Your task to perform on an android device: Open the calendar and show me this week's events? Image 0: 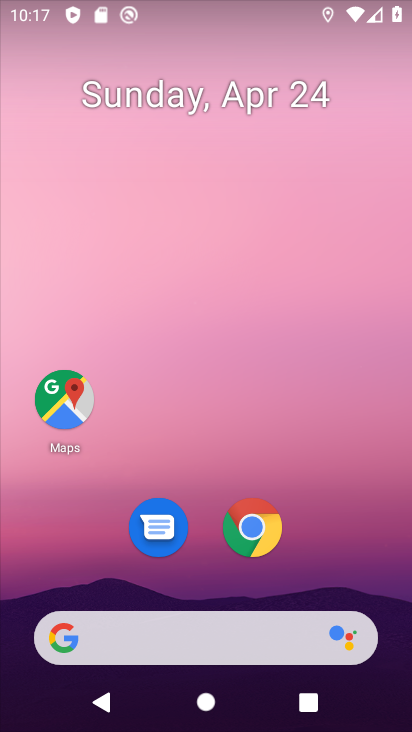
Step 0: drag from (313, 534) to (246, 60)
Your task to perform on an android device: Open the calendar and show me this week's events? Image 1: 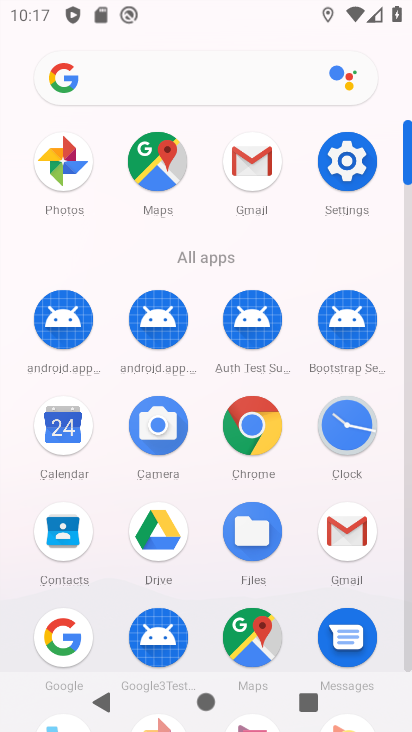
Step 1: click (72, 429)
Your task to perform on an android device: Open the calendar and show me this week's events? Image 2: 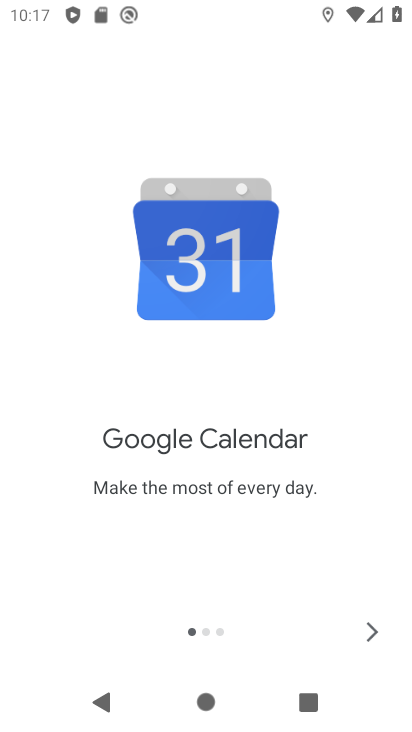
Step 2: click (375, 625)
Your task to perform on an android device: Open the calendar and show me this week's events? Image 3: 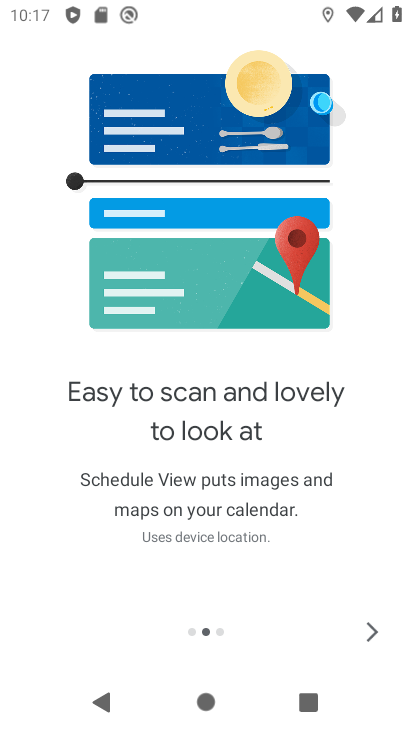
Step 3: click (375, 625)
Your task to perform on an android device: Open the calendar and show me this week's events? Image 4: 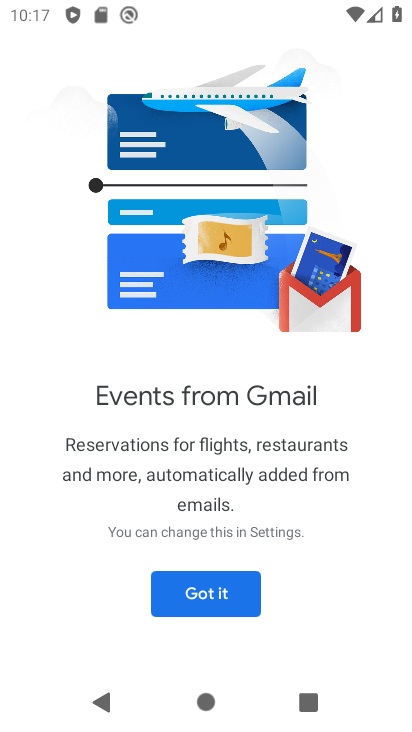
Step 4: click (166, 607)
Your task to perform on an android device: Open the calendar and show me this week's events? Image 5: 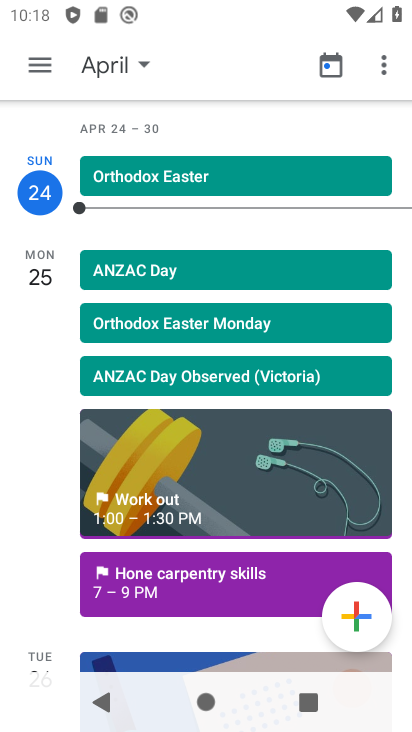
Step 5: click (104, 75)
Your task to perform on an android device: Open the calendar and show me this week's events? Image 6: 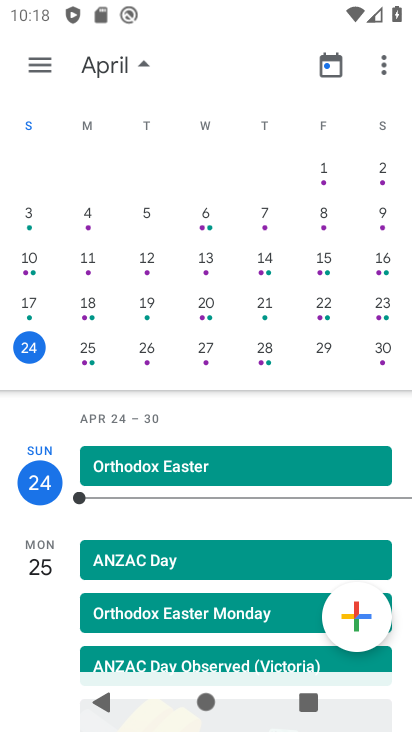
Step 6: click (95, 344)
Your task to perform on an android device: Open the calendar and show me this week's events? Image 7: 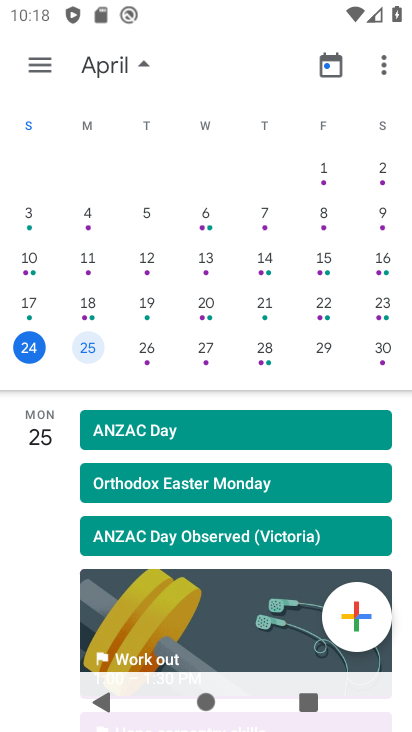
Step 7: click (142, 352)
Your task to perform on an android device: Open the calendar and show me this week's events? Image 8: 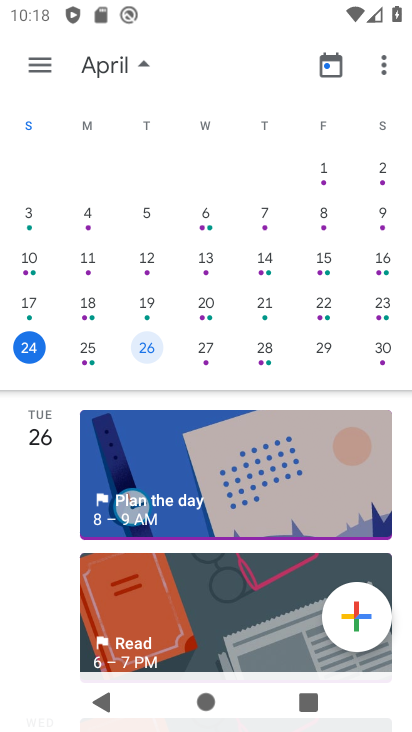
Step 8: click (210, 349)
Your task to perform on an android device: Open the calendar and show me this week's events? Image 9: 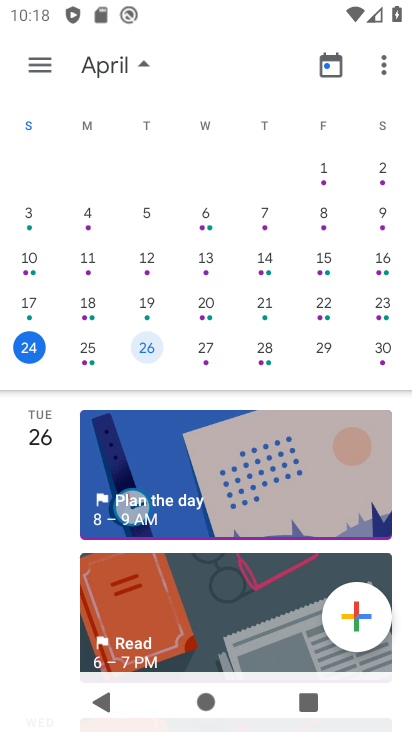
Step 9: click (217, 345)
Your task to perform on an android device: Open the calendar and show me this week's events? Image 10: 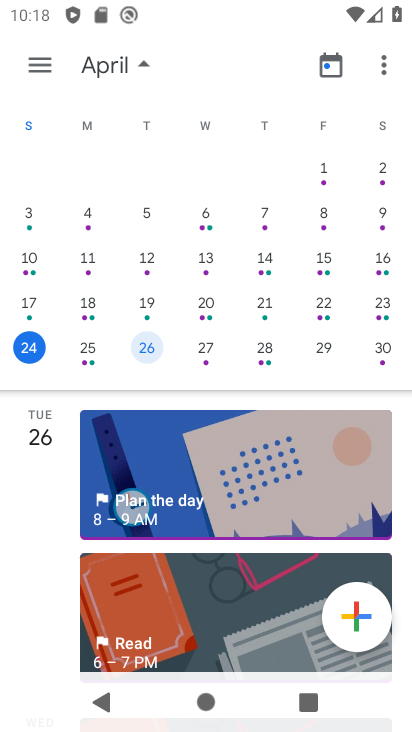
Step 10: click (211, 353)
Your task to perform on an android device: Open the calendar and show me this week's events? Image 11: 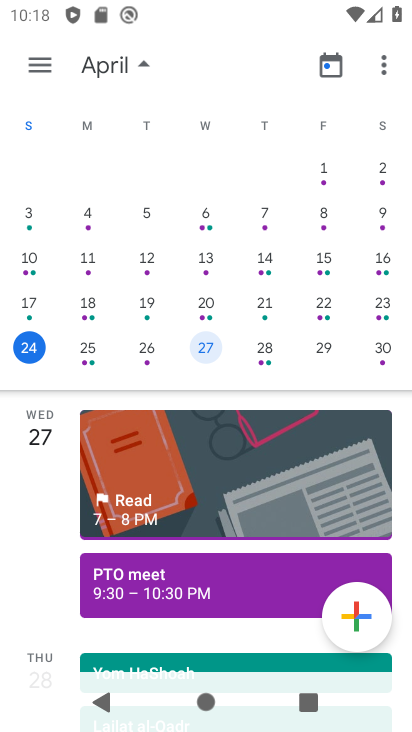
Step 11: click (269, 355)
Your task to perform on an android device: Open the calendar and show me this week's events? Image 12: 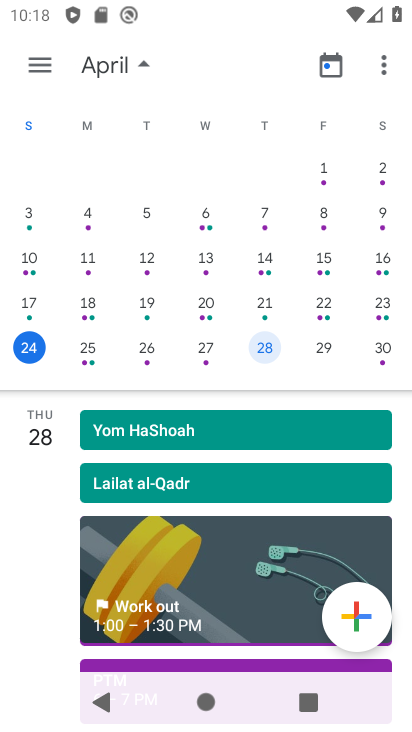
Step 12: click (385, 355)
Your task to perform on an android device: Open the calendar and show me this week's events? Image 13: 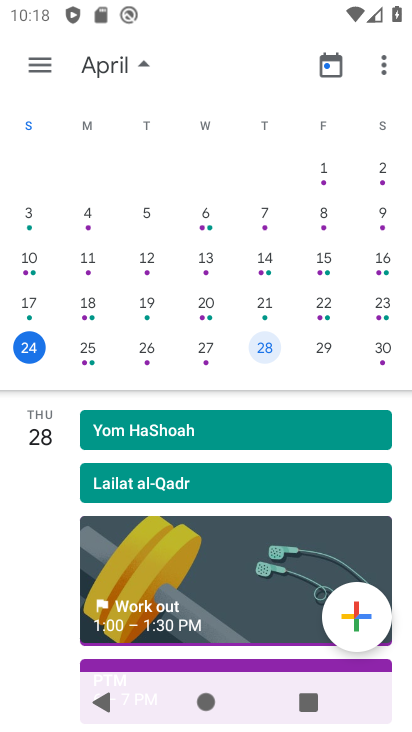
Step 13: click (385, 355)
Your task to perform on an android device: Open the calendar and show me this week's events? Image 14: 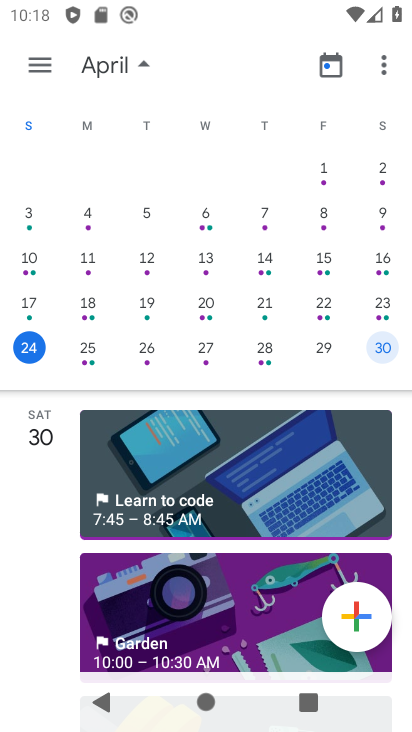
Step 14: task complete